Your task to perform on an android device: turn on improve location accuracy Image 0: 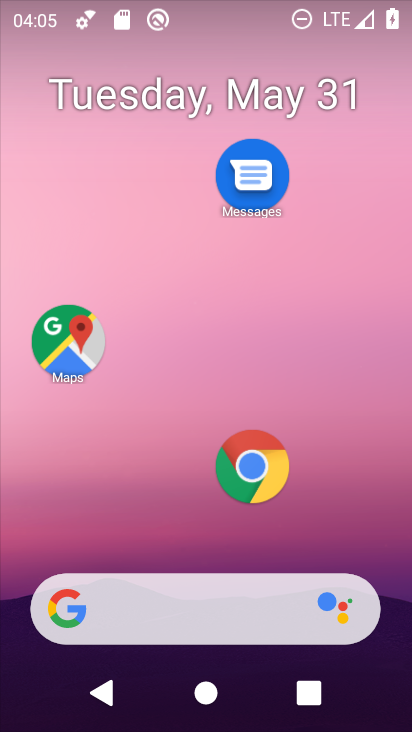
Step 0: drag from (160, 506) to (238, 106)
Your task to perform on an android device: turn on improve location accuracy Image 1: 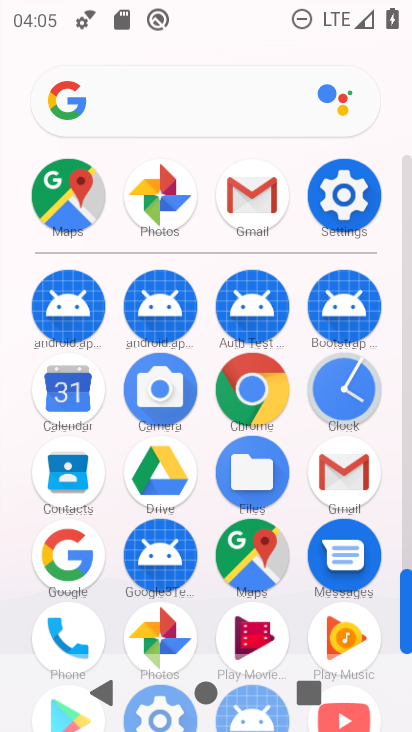
Step 1: click (328, 206)
Your task to perform on an android device: turn on improve location accuracy Image 2: 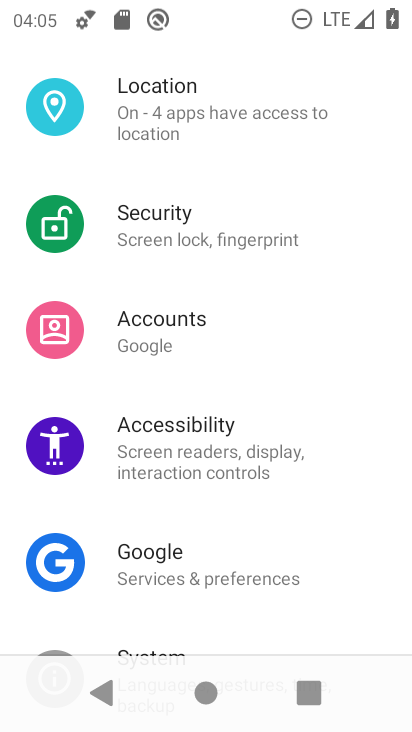
Step 2: click (164, 102)
Your task to perform on an android device: turn on improve location accuracy Image 3: 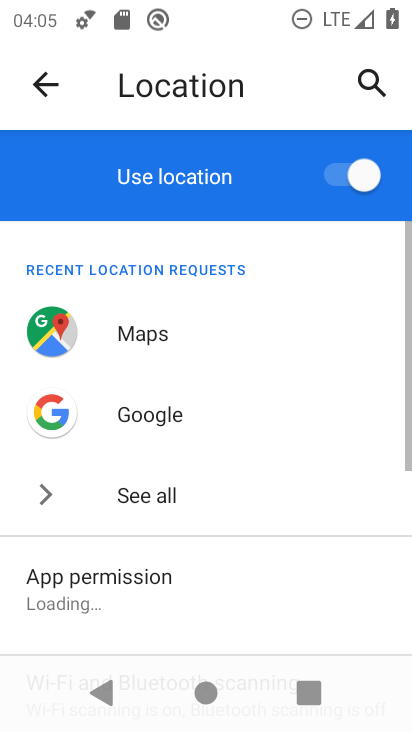
Step 3: drag from (151, 598) to (286, 131)
Your task to perform on an android device: turn on improve location accuracy Image 4: 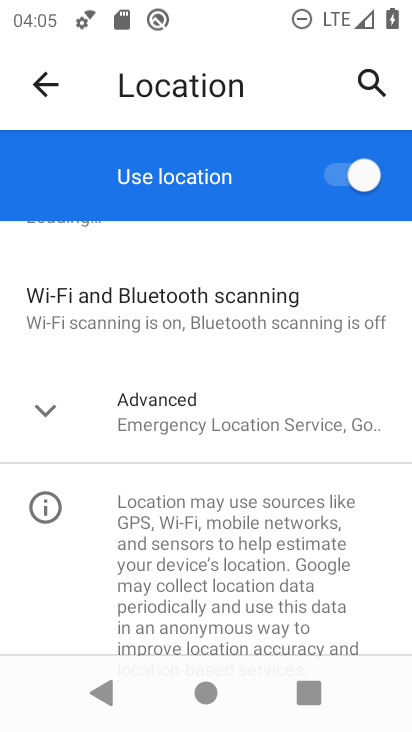
Step 4: click (253, 398)
Your task to perform on an android device: turn on improve location accuracy Image 5: 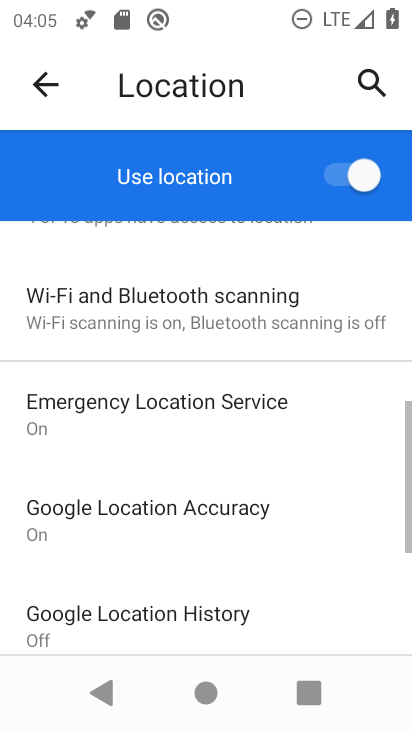
Step 5: click (175, 510)
Your task to perform on an android device: turn on improve location accuracy Image 6: 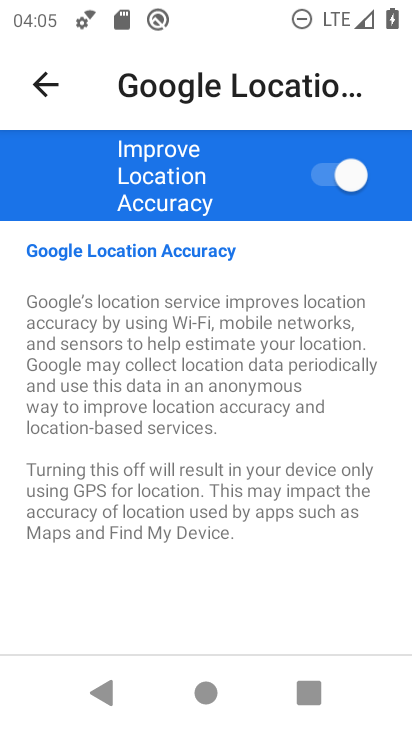
Step 6: task complete